Your task to perform on an android device: Open internet settings Image 0: 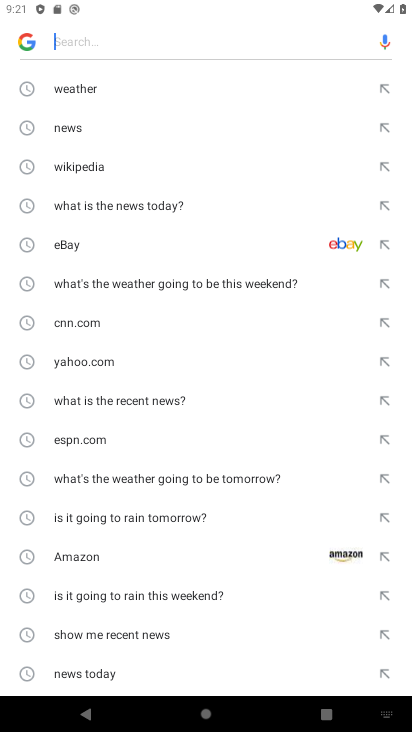
Step 0: press home button
Your task to perform on an android device: Open internet settings Image 1: 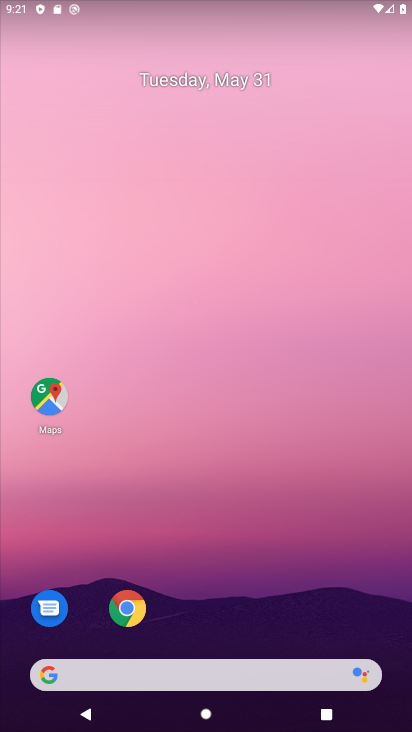
Step 1: drag from (288, 645) to (286, 145)
Your task to perform on an android device: Open internet settings Image 2: 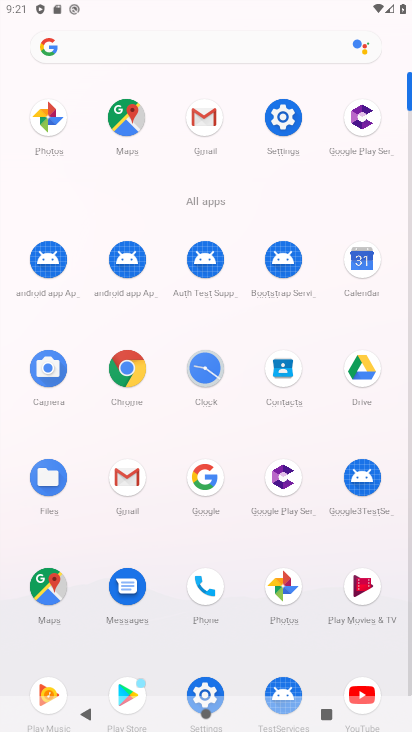
Step 2: click (293, 121)
Your task to perform on an android device: Open internet settings Image 3: 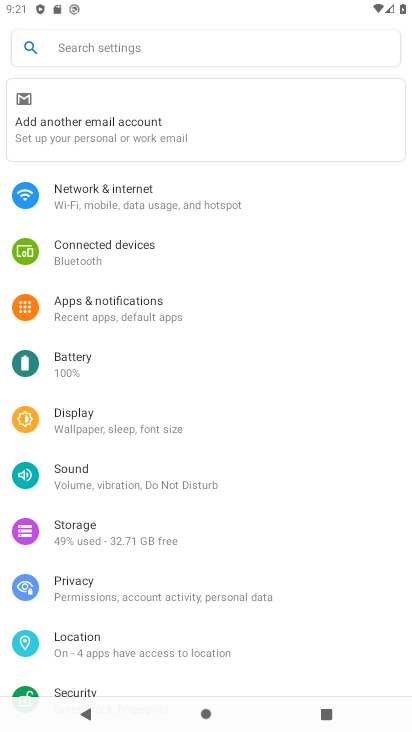
Step 3: click (207, 221)
Your task to perform on an android device: Open internet settings Image 4: 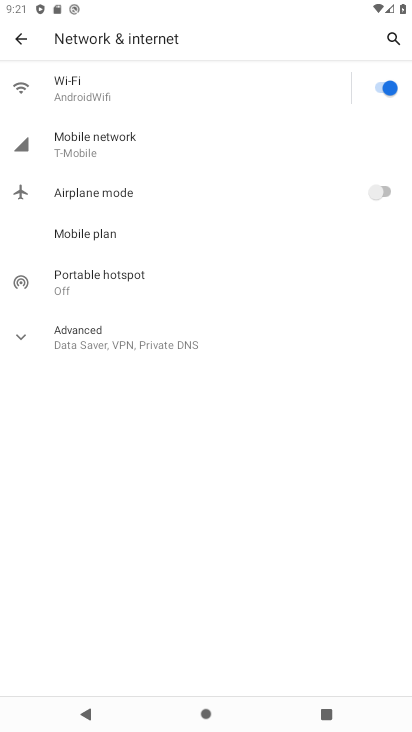
Step 4: click (203, 162)
Your task to perform on an android device: Open internet settings Image 5: 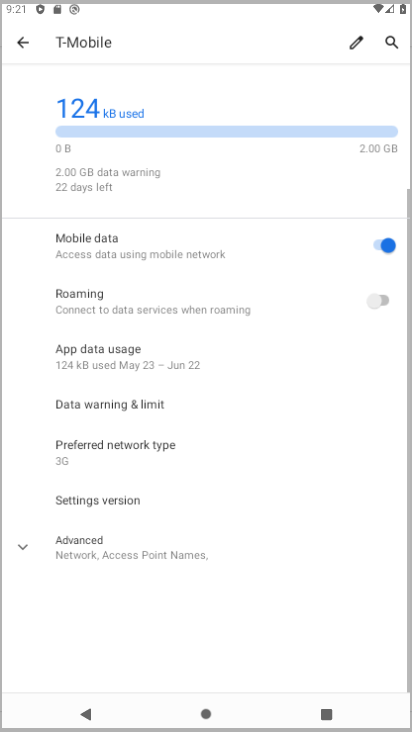
Step 5: task complete